Your task to perform on an android device: change text size in settings app Image 0: 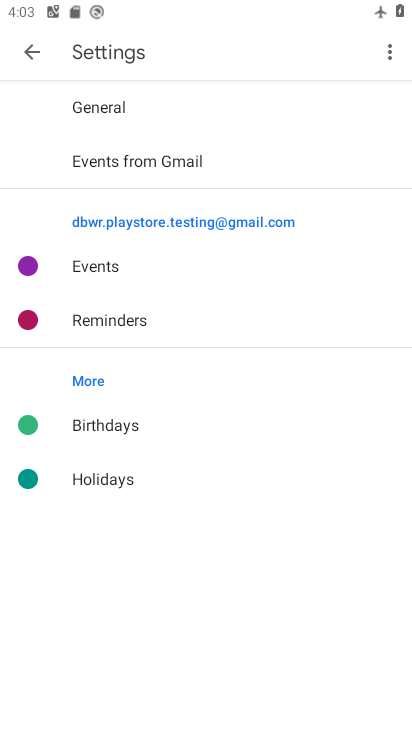
Step 0: press home button
Your task to perform on an android device: change text size in settings app Image 1: 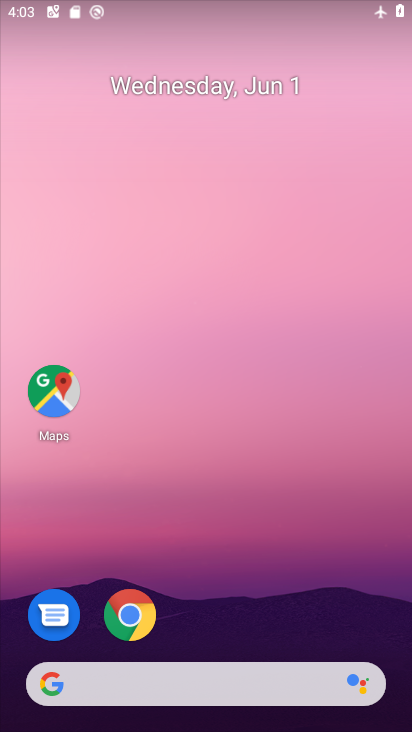
Step 1: drag from (242, 595) to (238, 156)
Your task to perform on an android device: change text size in settings app Image 2: 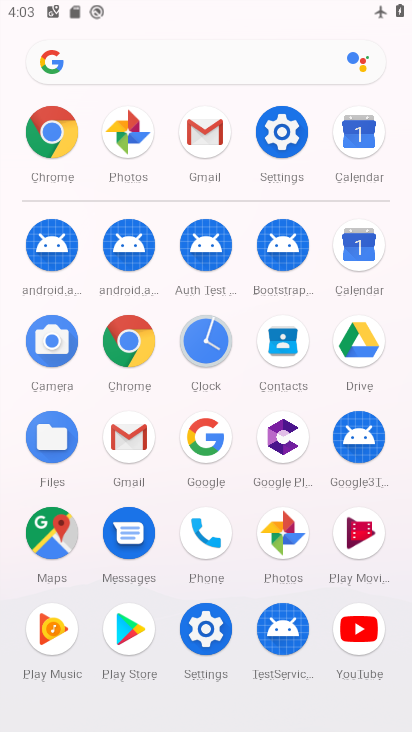
Step 2: click (281, 145)
Your task to perform on an android device: change text size in settings app Image 3: 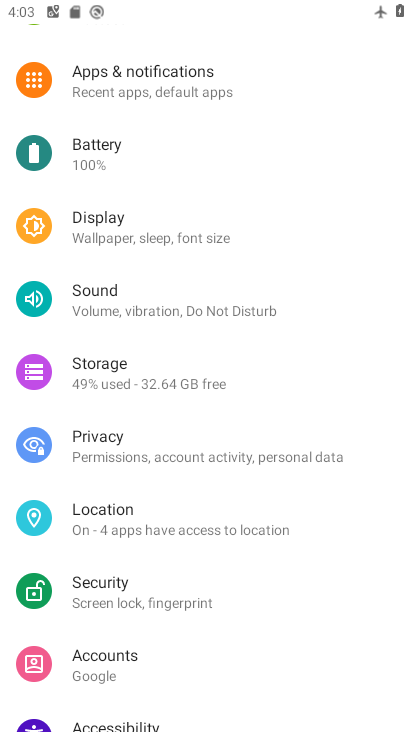
Step 3: drag from (228, 531) to (262, 216)
Your task to perform on an android device: change text size in settings app Image 4: 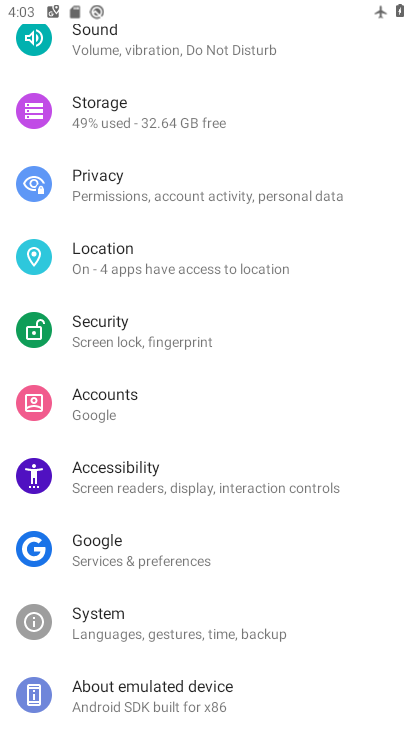
Step 4: drag from (259, 220) to (234, 566)
Your task to perform on an android device: change text size in settings app Image 5: 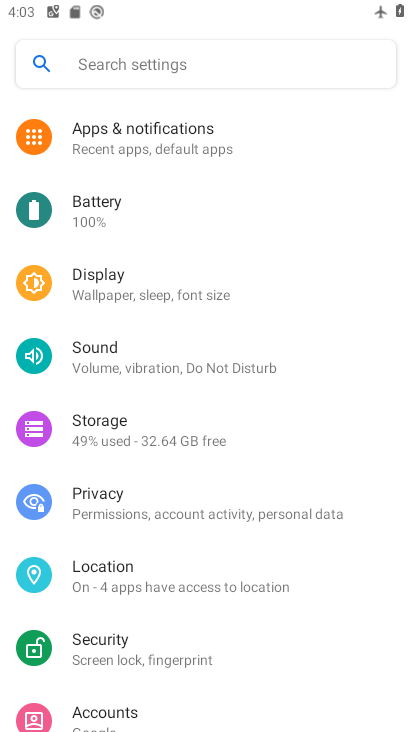
Step 5: drag from (235, 406) to (253, 262)
Your task to perform on an android device: change text size in settings app Image 6: 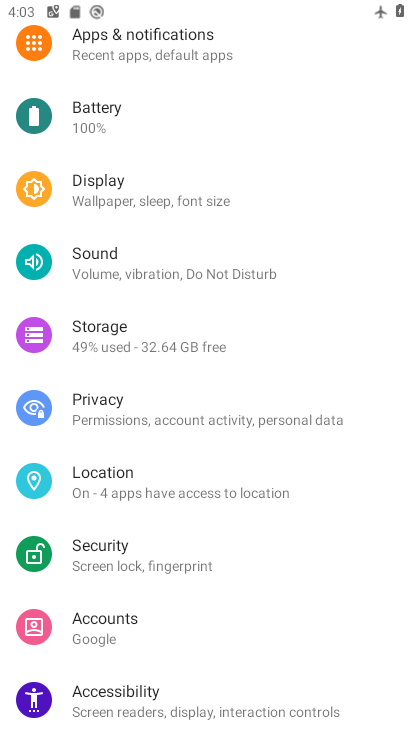
Step 6: click (157, 208)
Your task to perform on an android device: change text size in settings app Image 7: 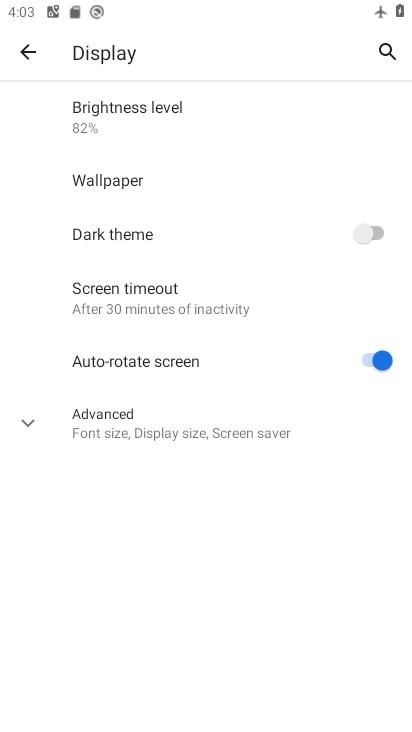
Step 7: click (189, 432)
Your task to perform on an android device: change text size in settings app Image 8: 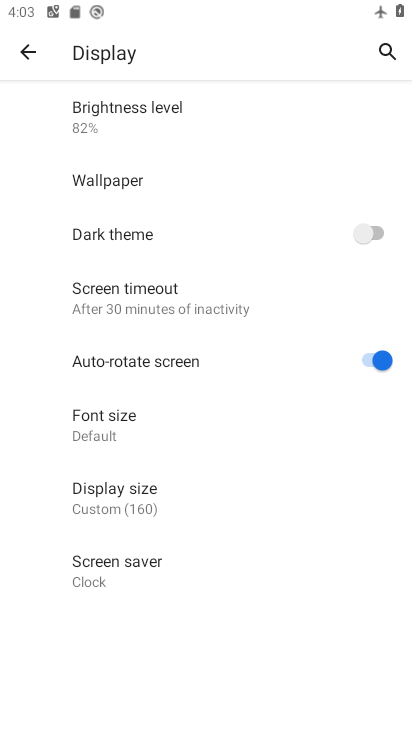
Step 8: click (140, 421)
Your task to perform on an android device: change text size in settings app Image 9: 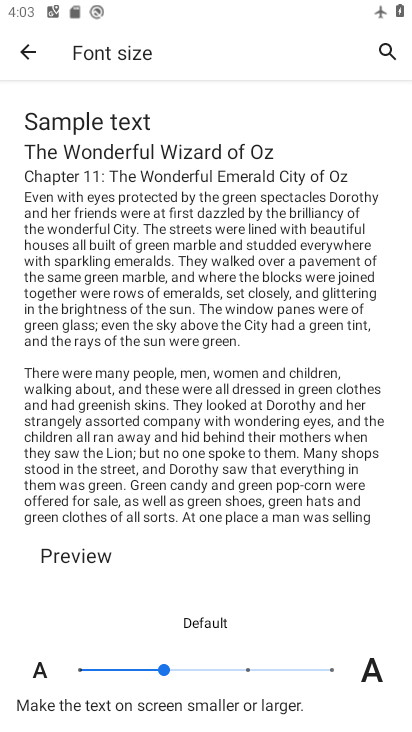
Step 9: click (92, 676)
Your task to perform on an android device: change text size in settings app Image 10: 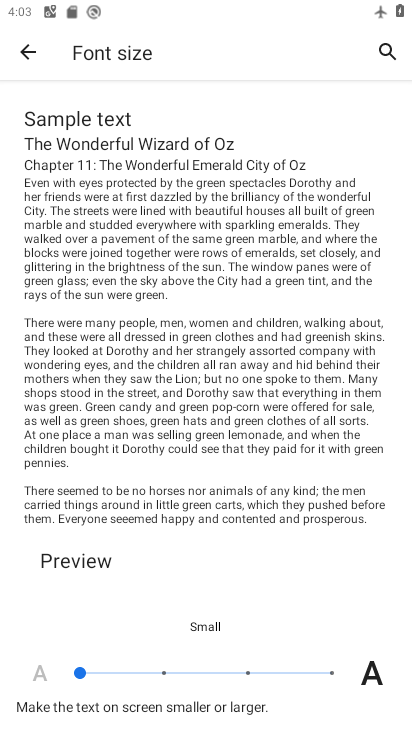
Step 10: task complete